Your task to perform on an android device: turn off improve location accuracy Image 0: 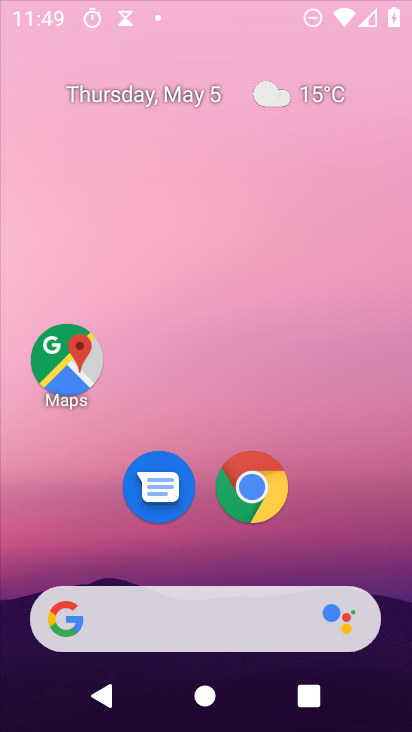
Step 0: click (172, 98)
Your task to perform on an android device: turn off improve location accuracy Image 1: 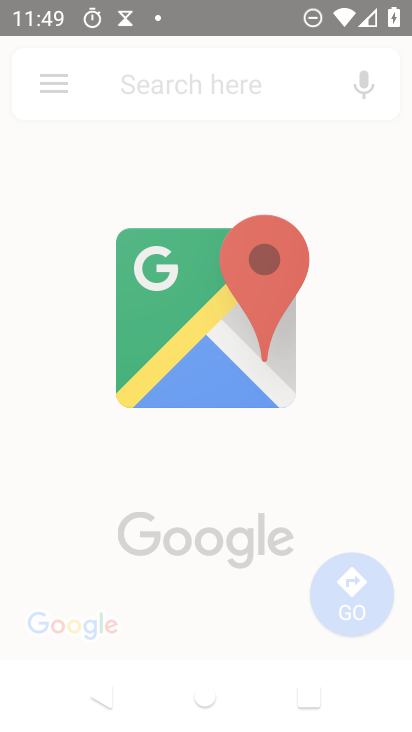
Step 1: drag from (287, 484) to (162, 12)
Your task to perform on an android device: turn off improve location accuracy Image 2: 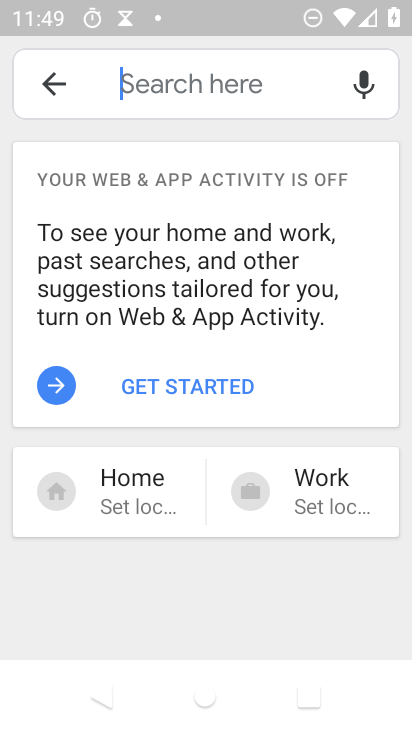
Step 2: drag from (235, 438) to (126, 24)
Your task to perform on an android device: turn off improve location accuracy Image 3: 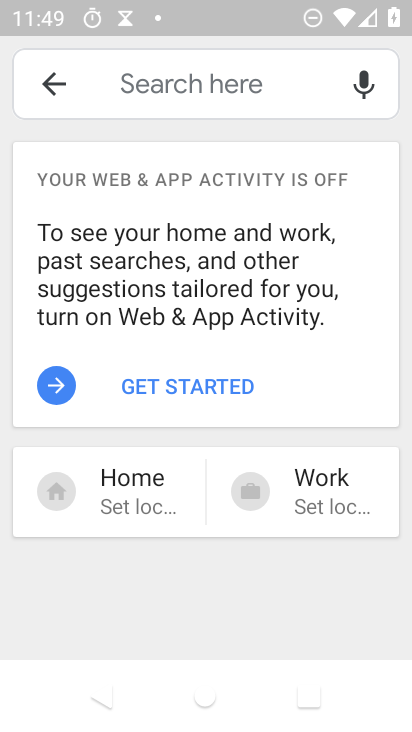
Step 3: click (53, 79)
Your task to perform on an android device: turn off improve location accuracy Image 4: 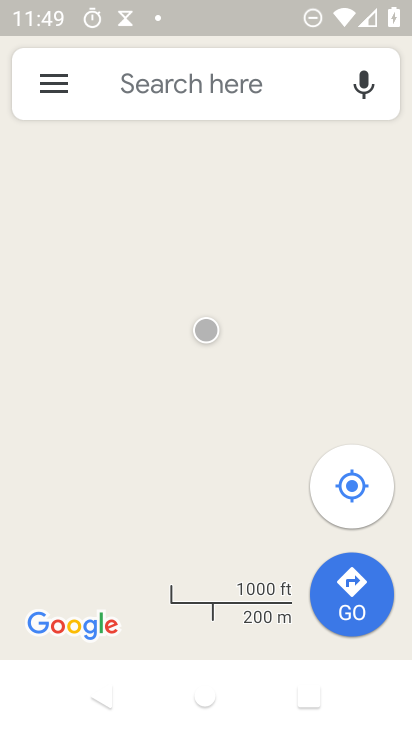
Step 4: drag from (239, 470) to (137, 123)
Your task to perform on an android device: turn off improve location accuracy Image 5: 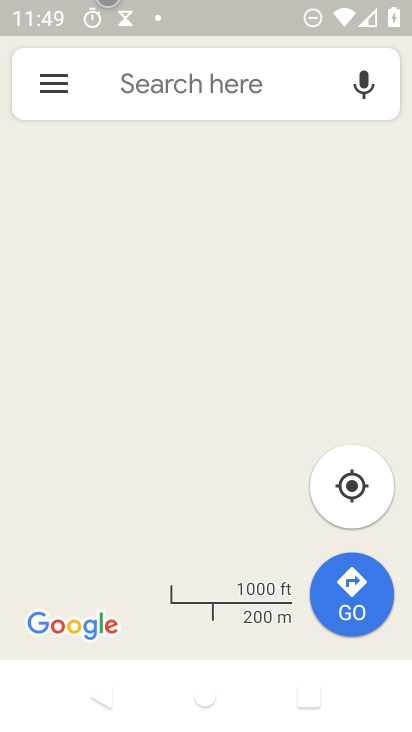
Step 5: click (174, 59)
Your task to perform on an android device: turn off improve location accuracy Image 6: 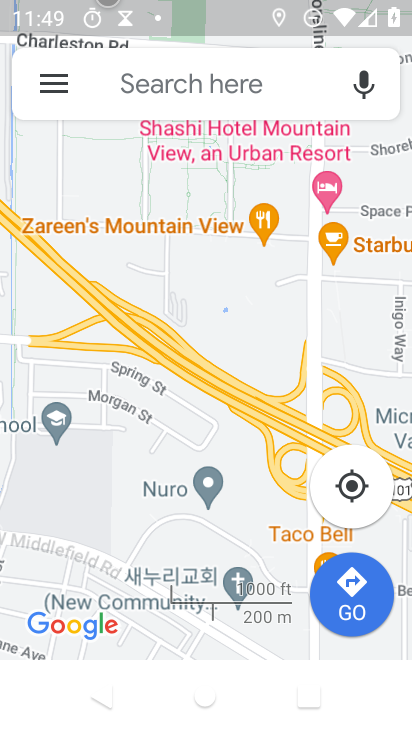
Step 6: press home button
Your task to perform on an android device: turn off improve location accuracy Image 7: 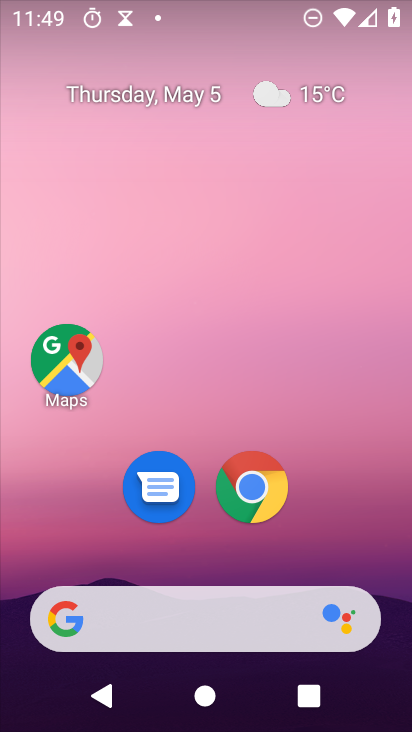
Step 7: drag from (329, 472) to (110, 37)
Your task to perform on an android device: turn off improve location accuracy Image 8: 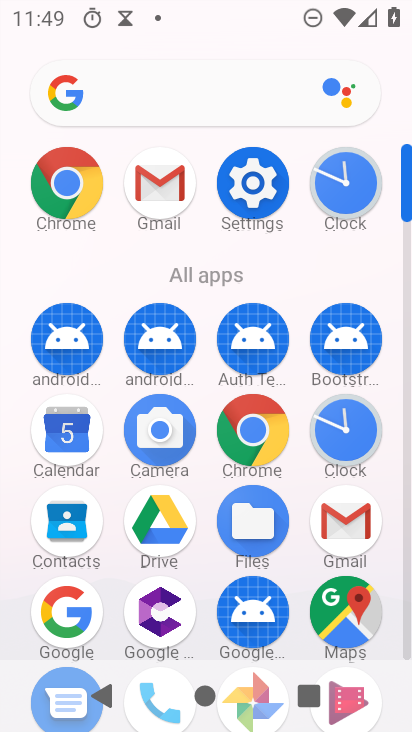
Step 8: click (239, 188)
Your task to perform on an android device: turn off improve location accuracy Image 9: 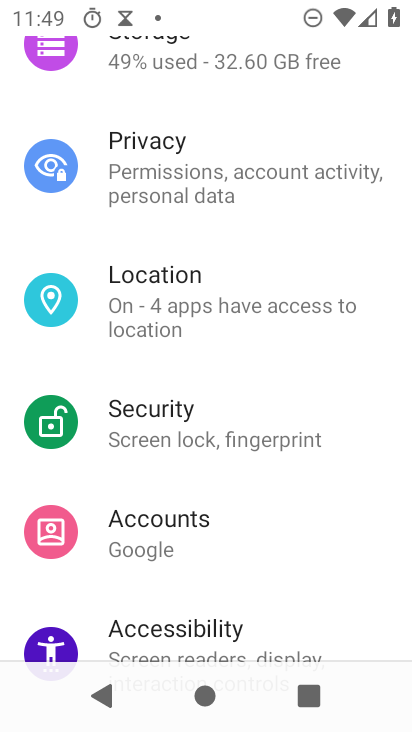
Step 9: click (173, 332)
Your task to perform on an android device: turn off improve location accuracy Image 10: 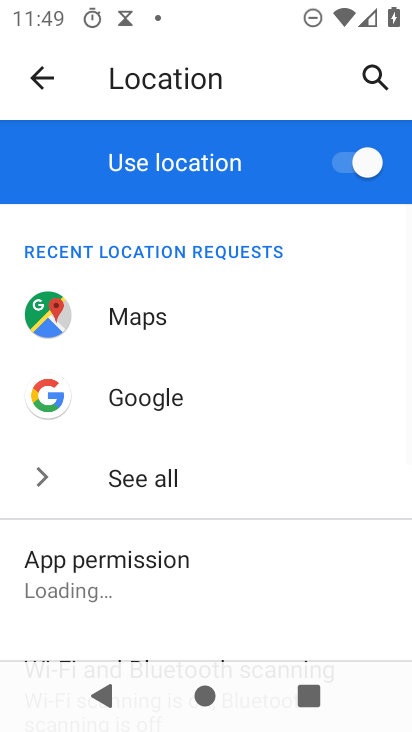
Step 10: drag from (233, 565) to (170, 118)
Your task to perform on an android device: turn off improve location accuracy Image 11: 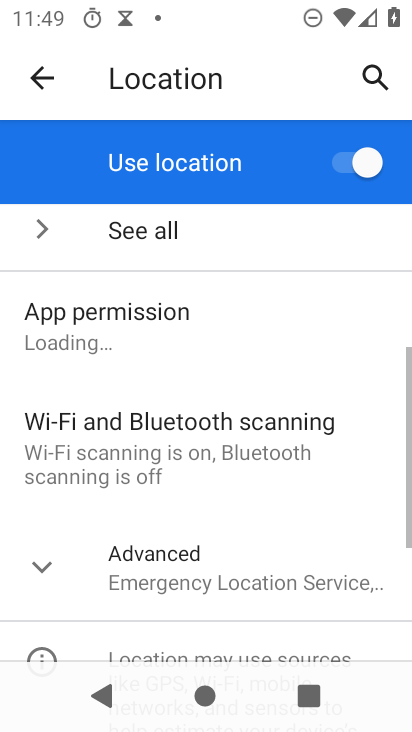
Step 11: drag from (155, 509) to (119, 117)
Your task to perform on an android device: turn off improve location accuracy Image 12: 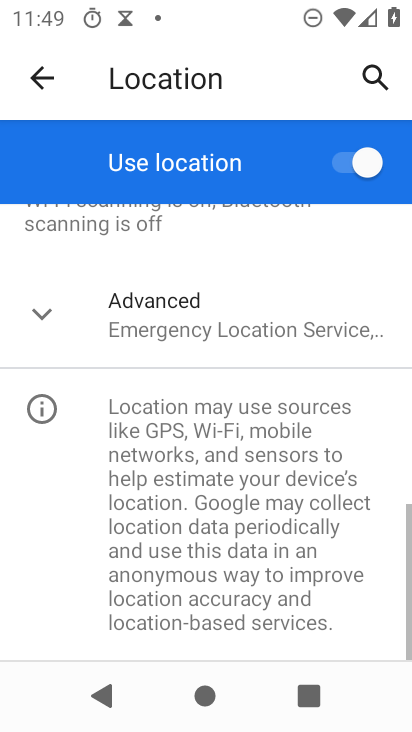
Step 12: click (230, 320)
Your task to perform on an android device: turn off improve location accuracy Image 13: 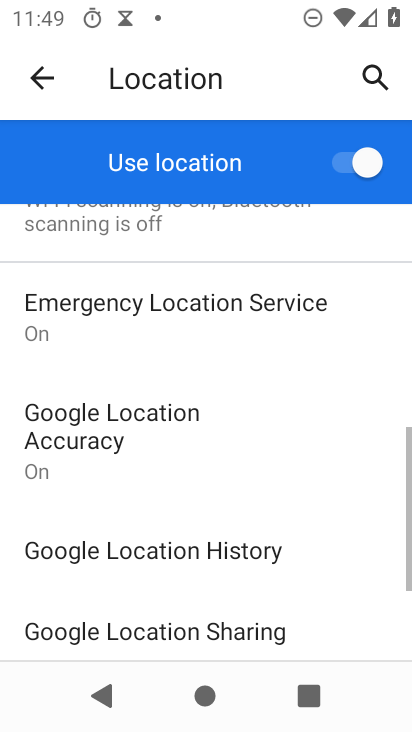
Step 13: drag from (242, 568) to (219, 131)
Your task to perform on an android device: turn off improve location accuracy Image 14: 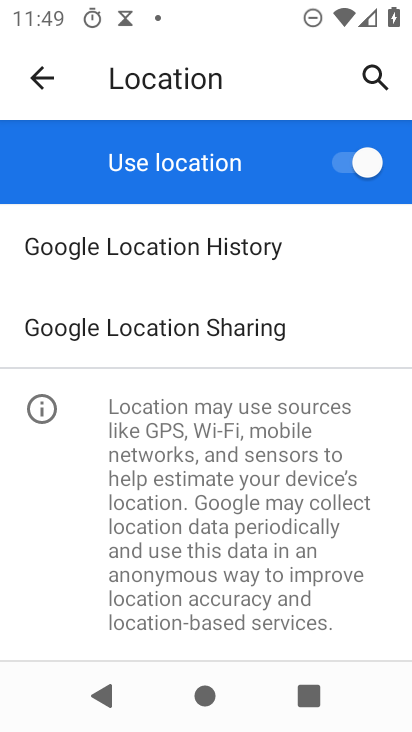
Step 14: drag from (246, 276) to (245, 626)
Your task to perform on an android device: turn off improve location accuracy Image 15: 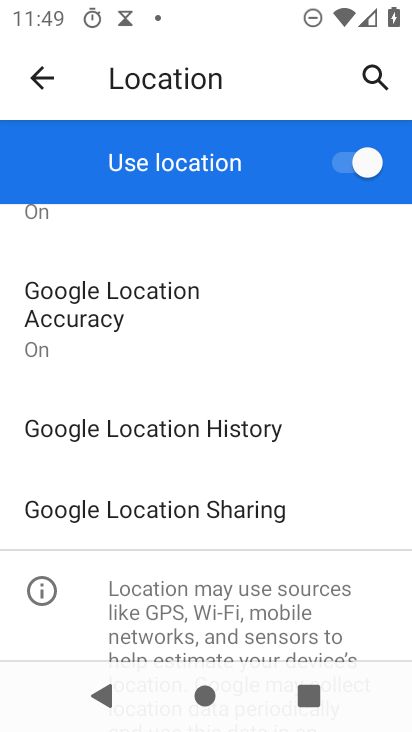
Step 15: drag from (97, 306) to (100, 343)
Your task to perform on an android device: turn off improve location accuracy Image 16: 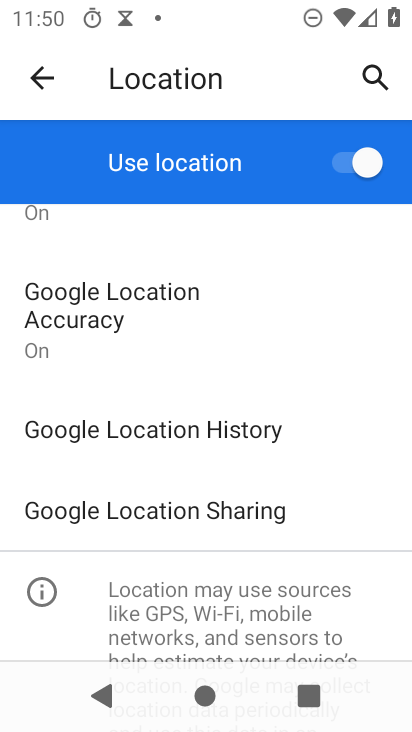
Step 16: click (107, 318)
Your task to perform on an android device: turn off improve location accuracy Image 17: 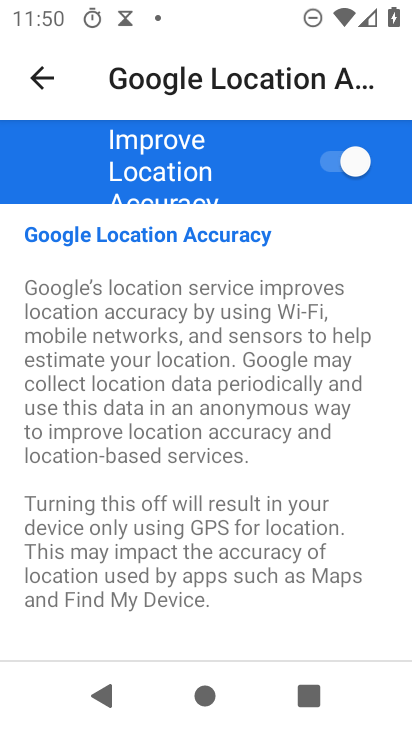
Step 17: click (362, 160)
Your task to perform on an android device: turn off improve location accuracy Image 18: 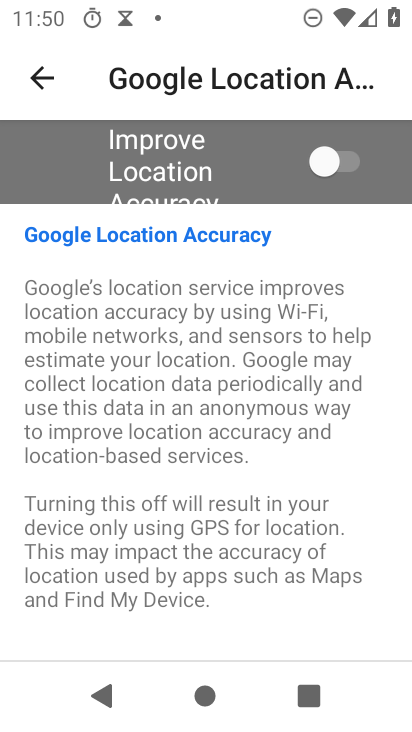
Step 18: task complete